Your task to perform on an android device: turn off location Image 0: 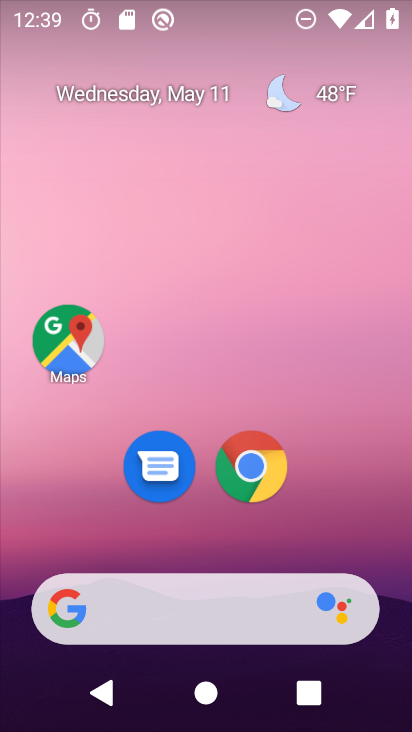
Step 0: press home button
Your task to perform on an android device: turn off location Image 1: 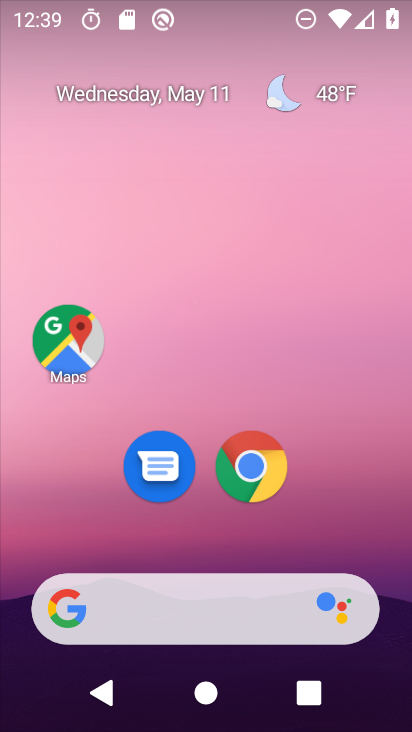
Step 1: drag from (205, 542) to (248, 19)
Your task to perform on an android device: turn off location Image 2: 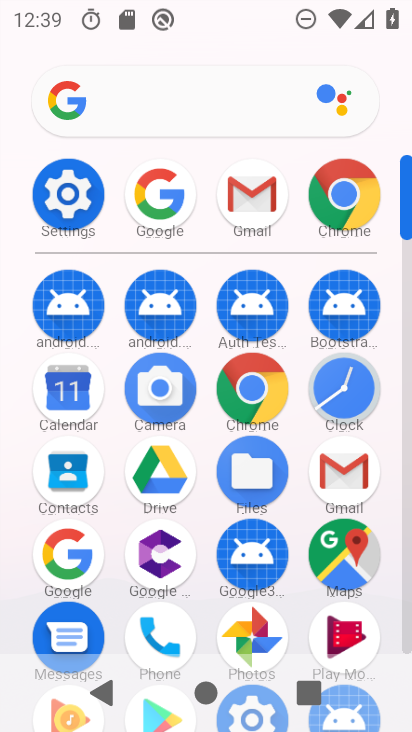
Step 2: click (343, 549)
Your task to perform on an android device: turn off location Image 3: 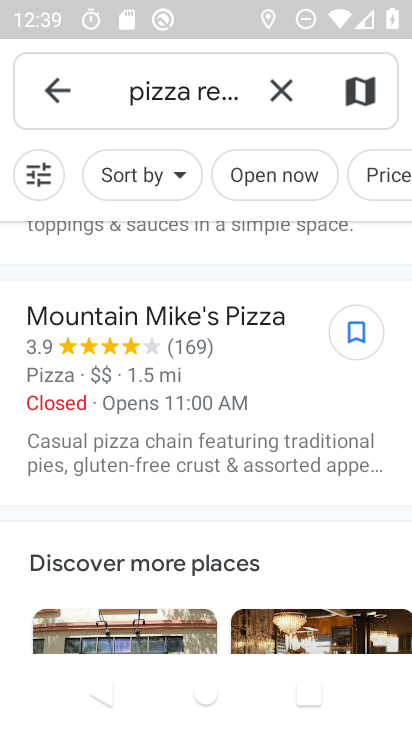
Step 3: press home button
Your task to perform on an android device: turn off location Image 4: 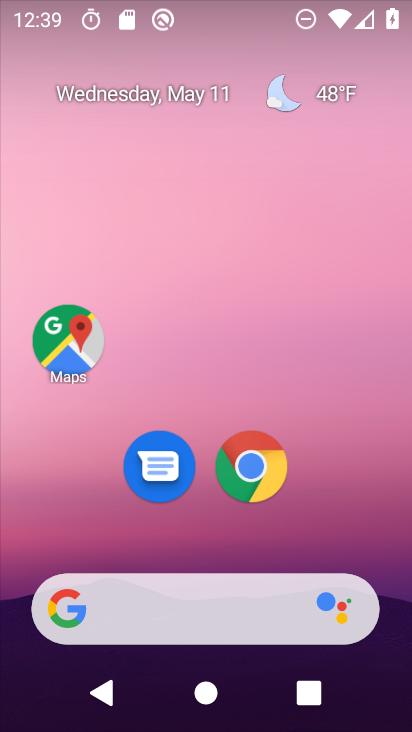
Step 4: drag from (214, 536) to (280, 58)
Your task to perform on an android device: turn off location Image 5: 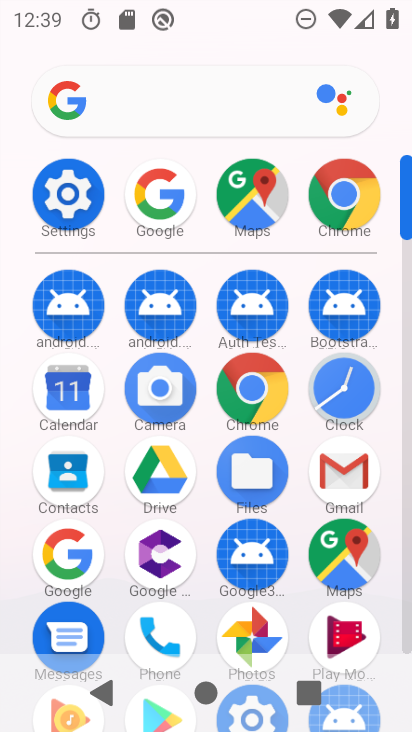
Step 5: click (254, 190)
Your task to perform on an android device: turn off location Image 6: 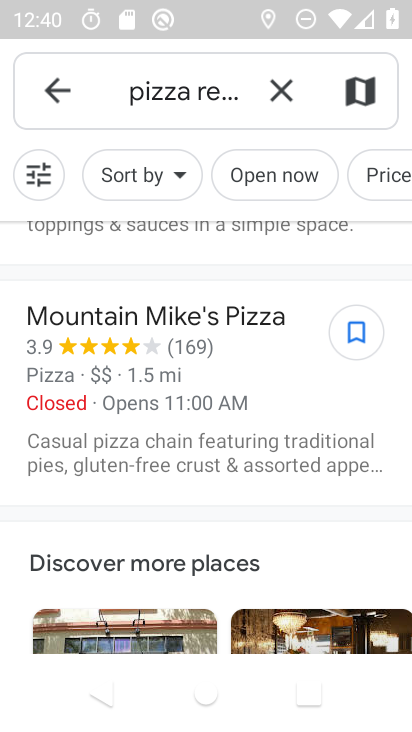
Step 6: press home button
Your task to perform on an android device: turn off location Image 7: 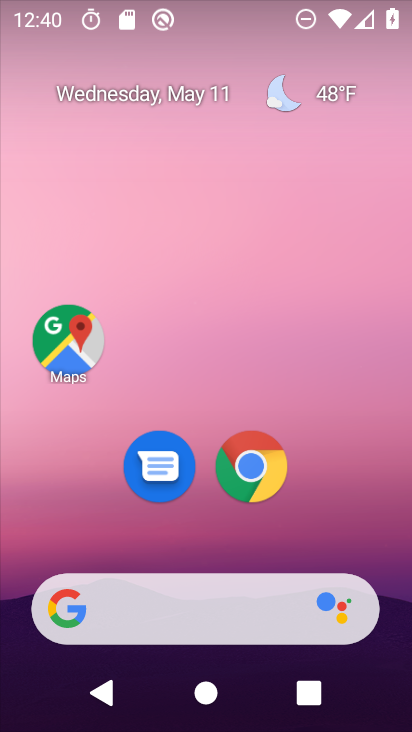
Step 7: drag from (204, 544) to (244, 55)
Your task to perform on an android device: turn off location Image 8: 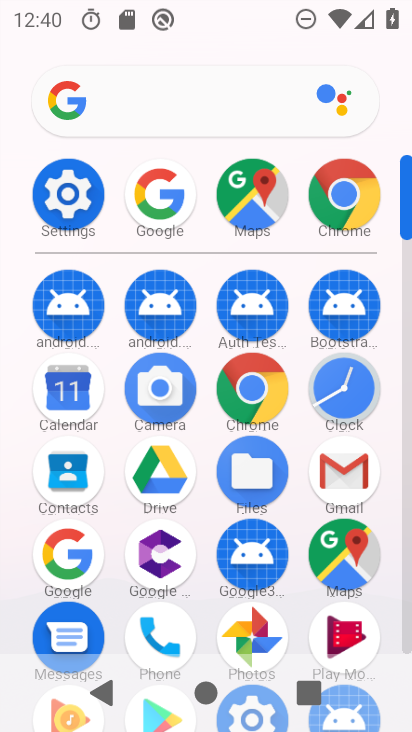
Step 8: click (65, 183)
Your task to perform on an android device: turn off location Image 9: 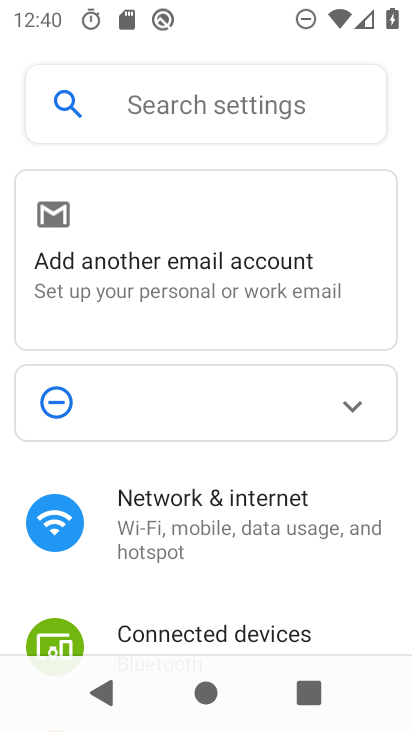
Step 9: drag from (206, 594) to (237, 40)
Your task to perform on an android device: turn off location Image 10: 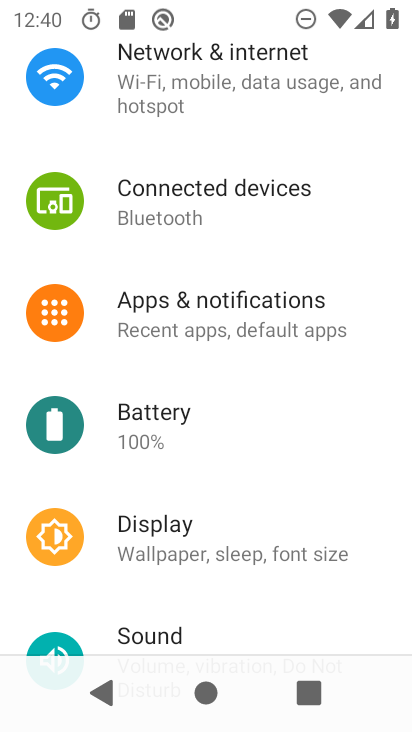
Step 10: drag from (220, 617) to (261, 74)
Your task to perform on an android device: turn off location Image 11: 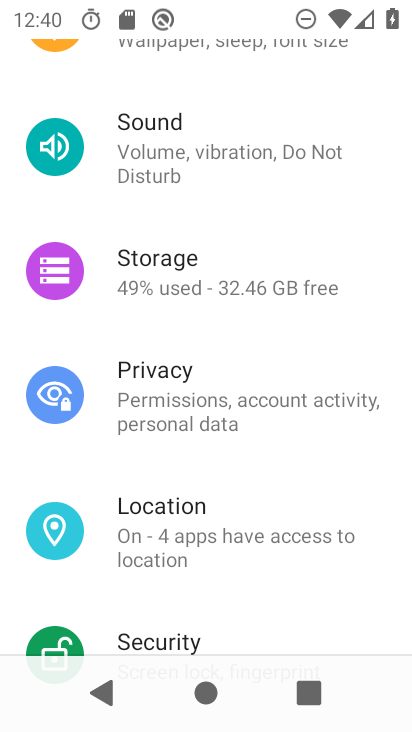
Step 11: click (239, 521)
Your task to perform on an android device: turn off location Image 12: 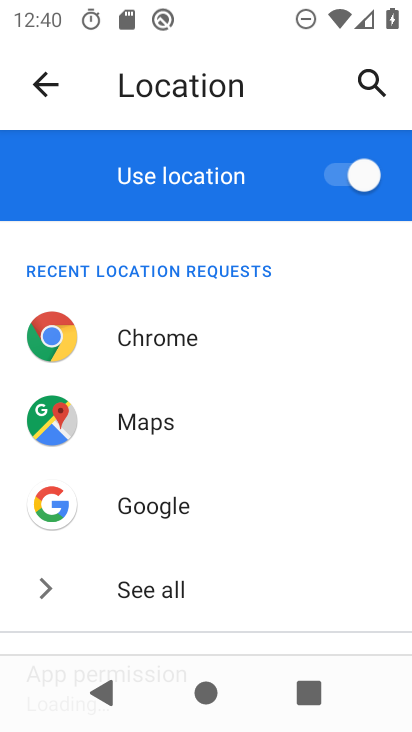
Step 12: click (344, 175)
Your task to perform on an android device: turn off location Image 13: 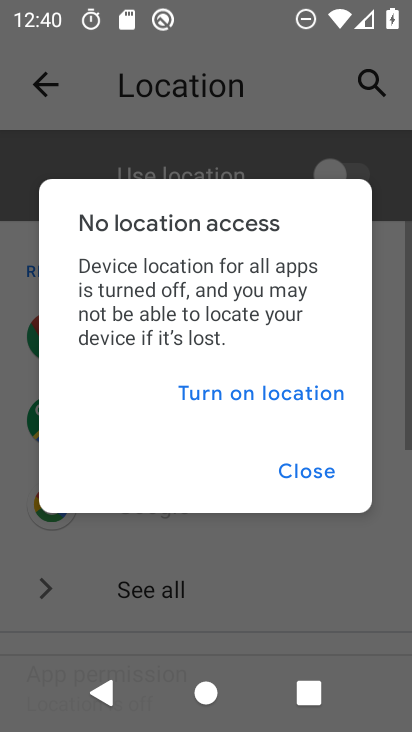
Step 13: task complete